Your task to perform on an android device: clear history in the chrome app Image 0: 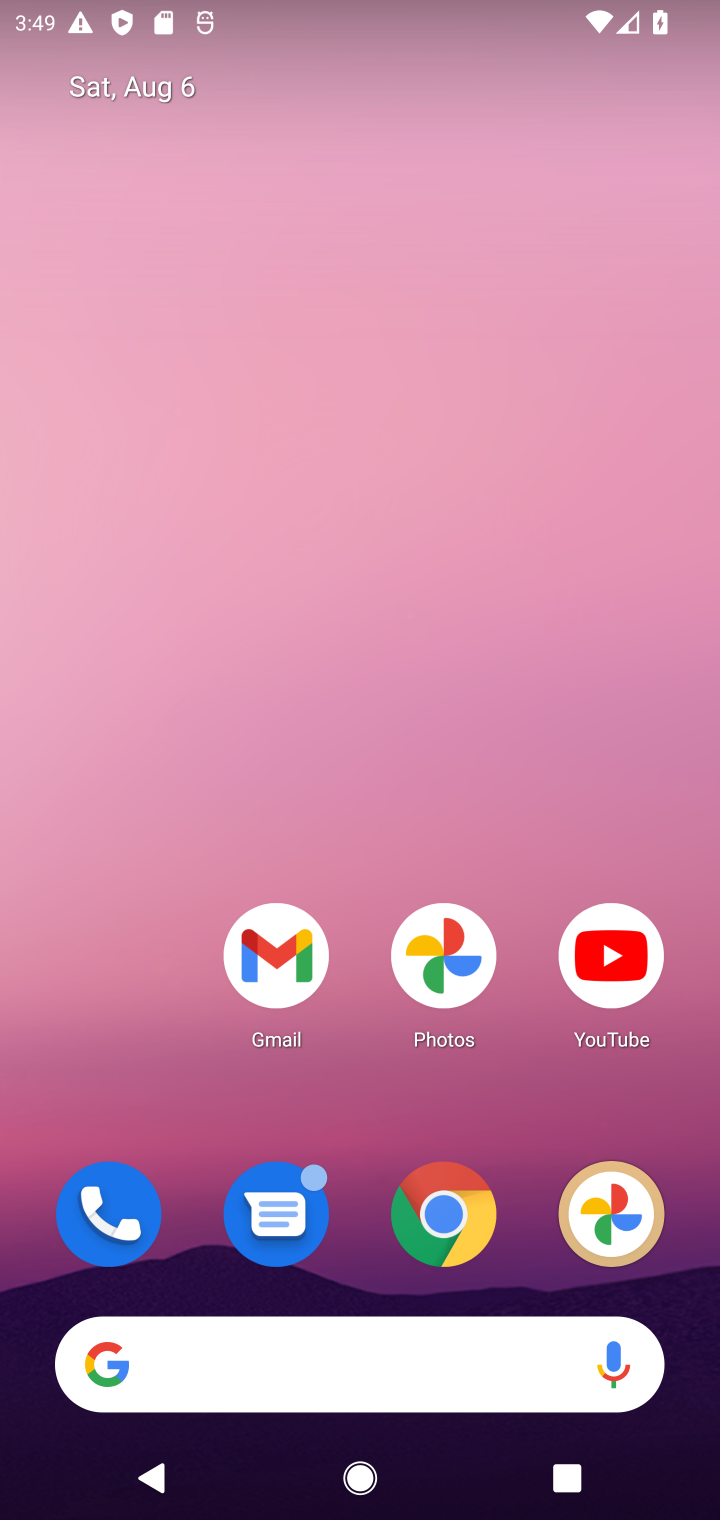
Step 0: click (443, 1203)
Your task to perform on an android device: clear history in the chrome app Image 1: 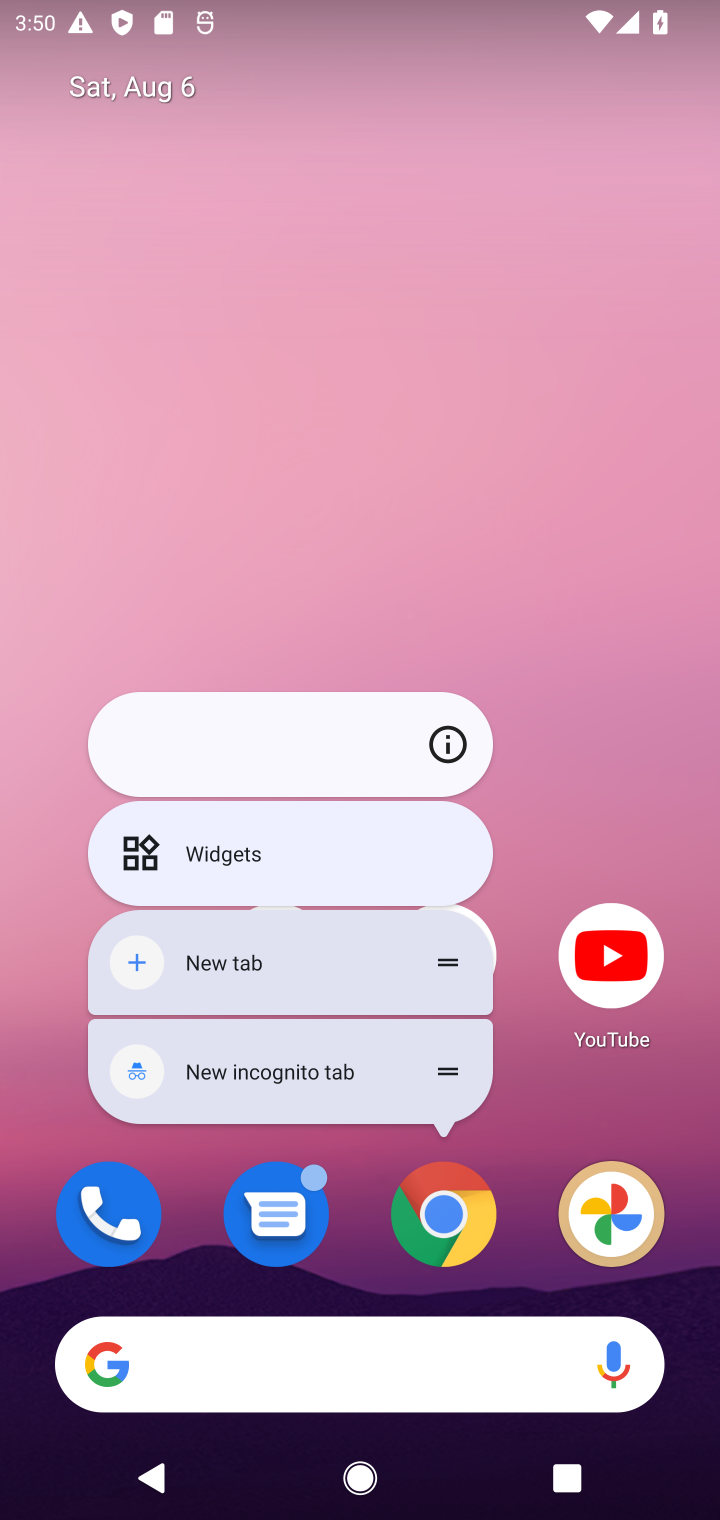
Step 1: click (445, 1199)
Your task to perform on an android device: clear history in the chrome app Image 2: 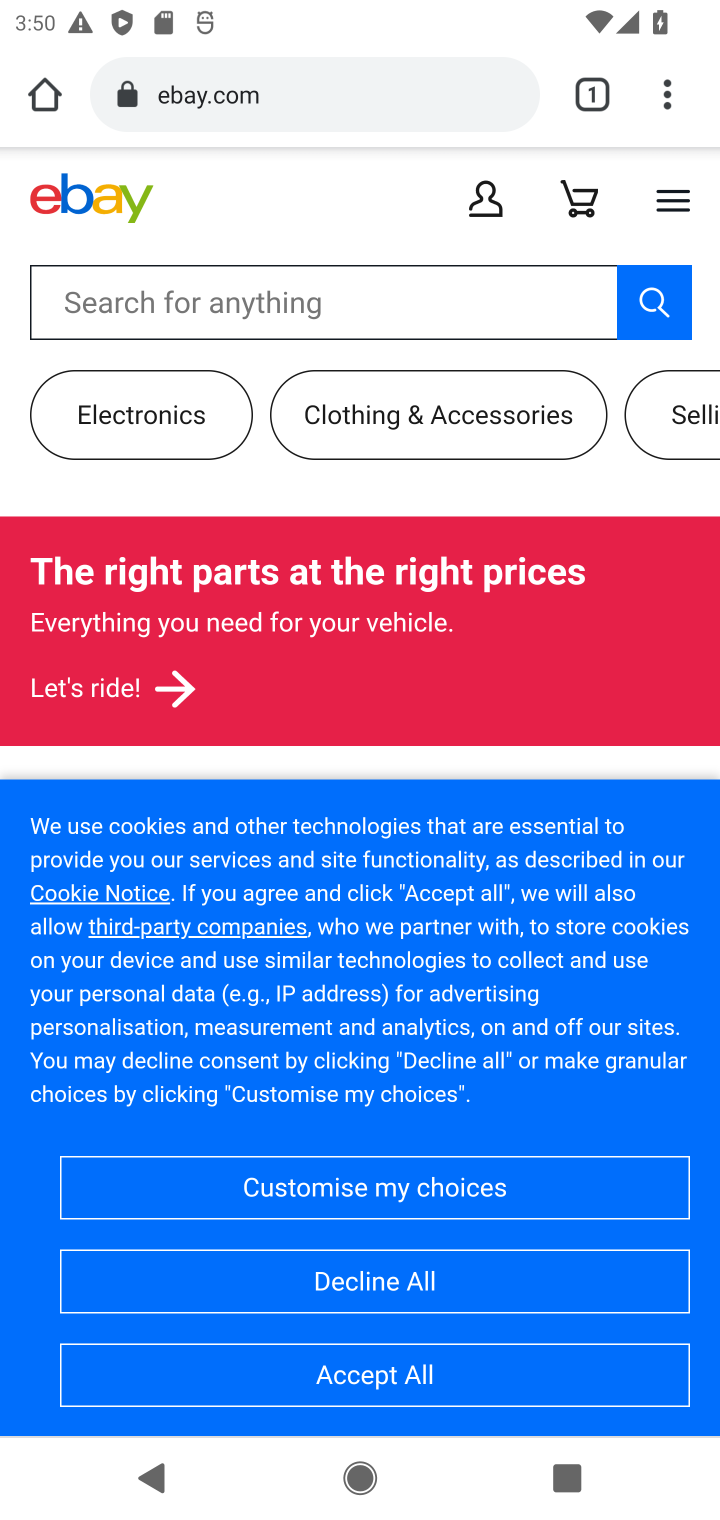
Step 2: click (670, 98)
Your task to perform on an android device: clear history in the chrome app Image 3: 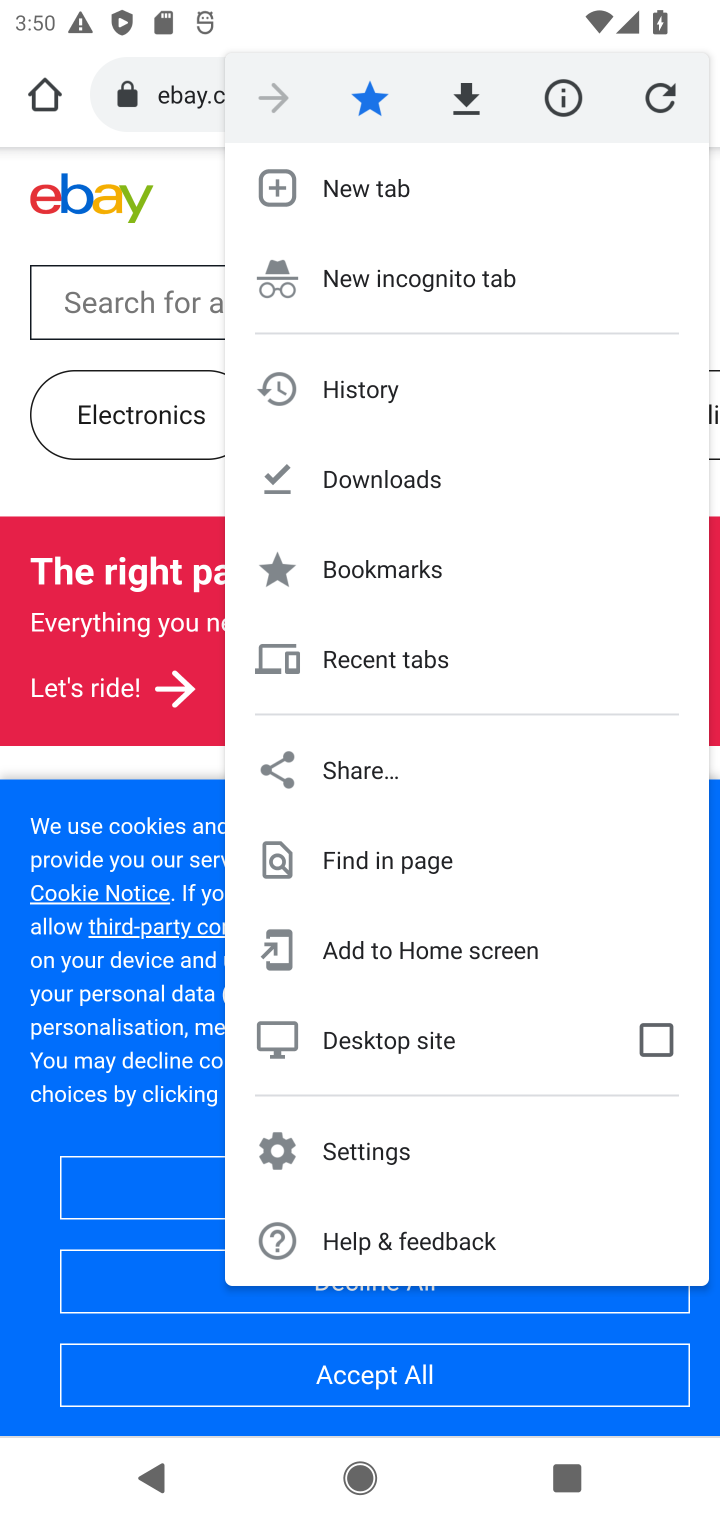
Step 3: click (399, 691)
Your task to perform on an android device: clear history in the chrome app Image 4: 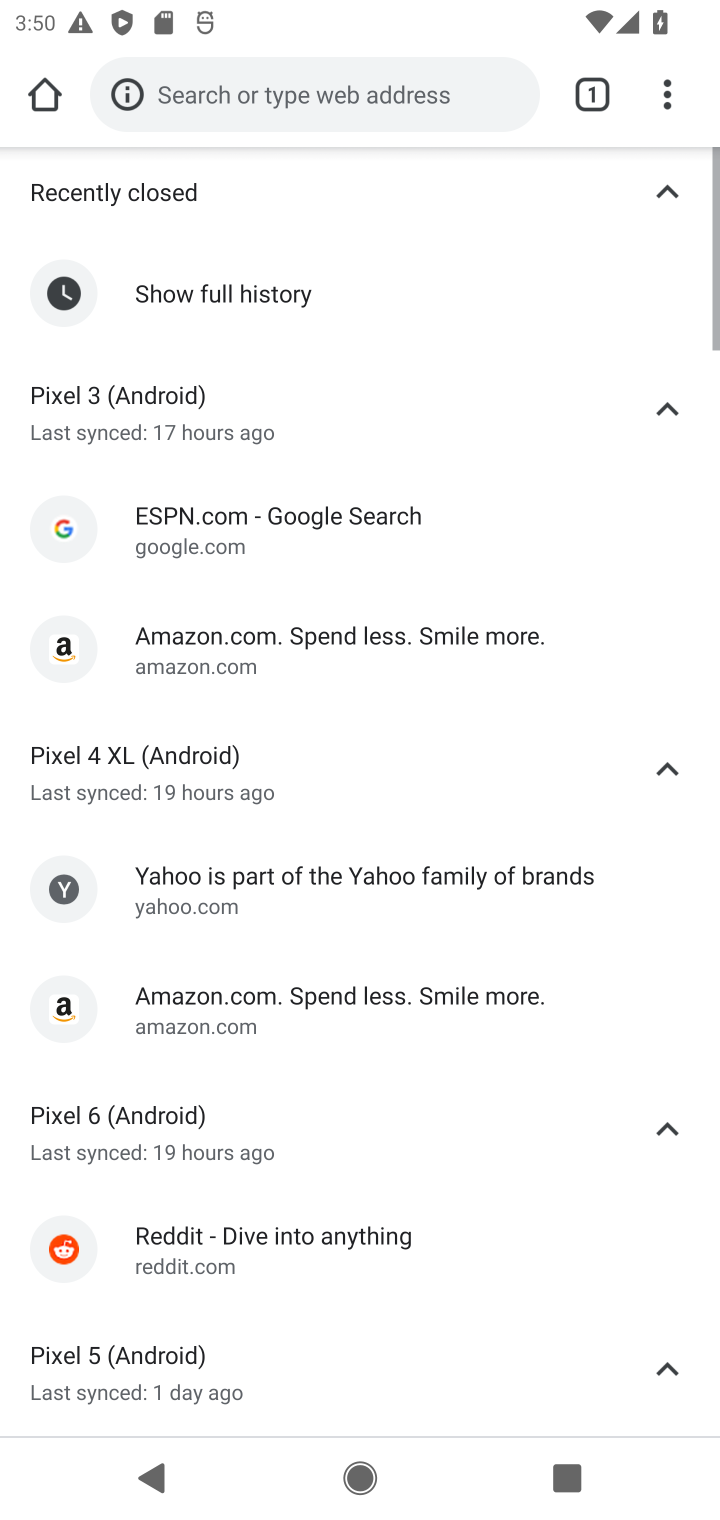
Step 4: click (350, 375)
Your task to perform on an android device: clear history in the chrome app Image 5: 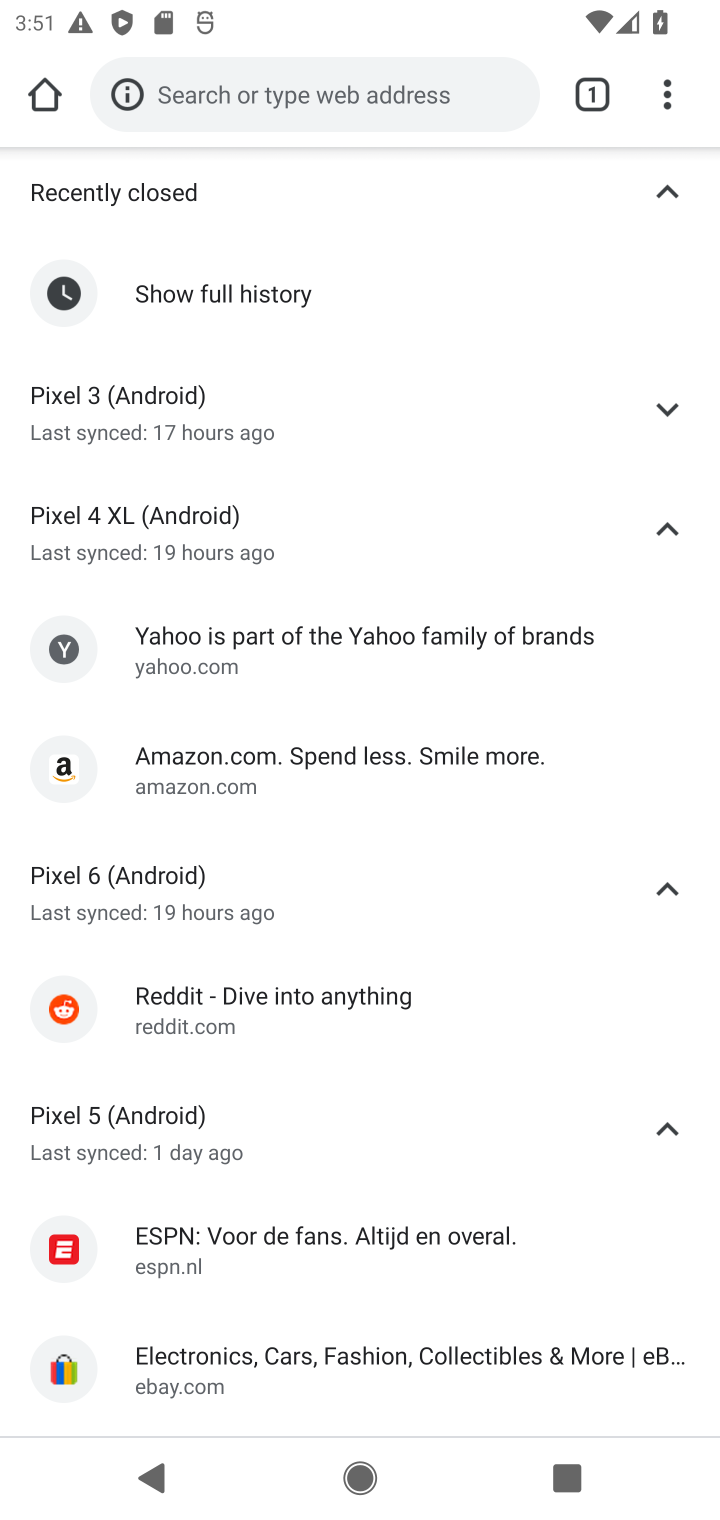
Step 5: click (664, 102)
Your task to perform on an android device: clear history in the chrome app Image 6: 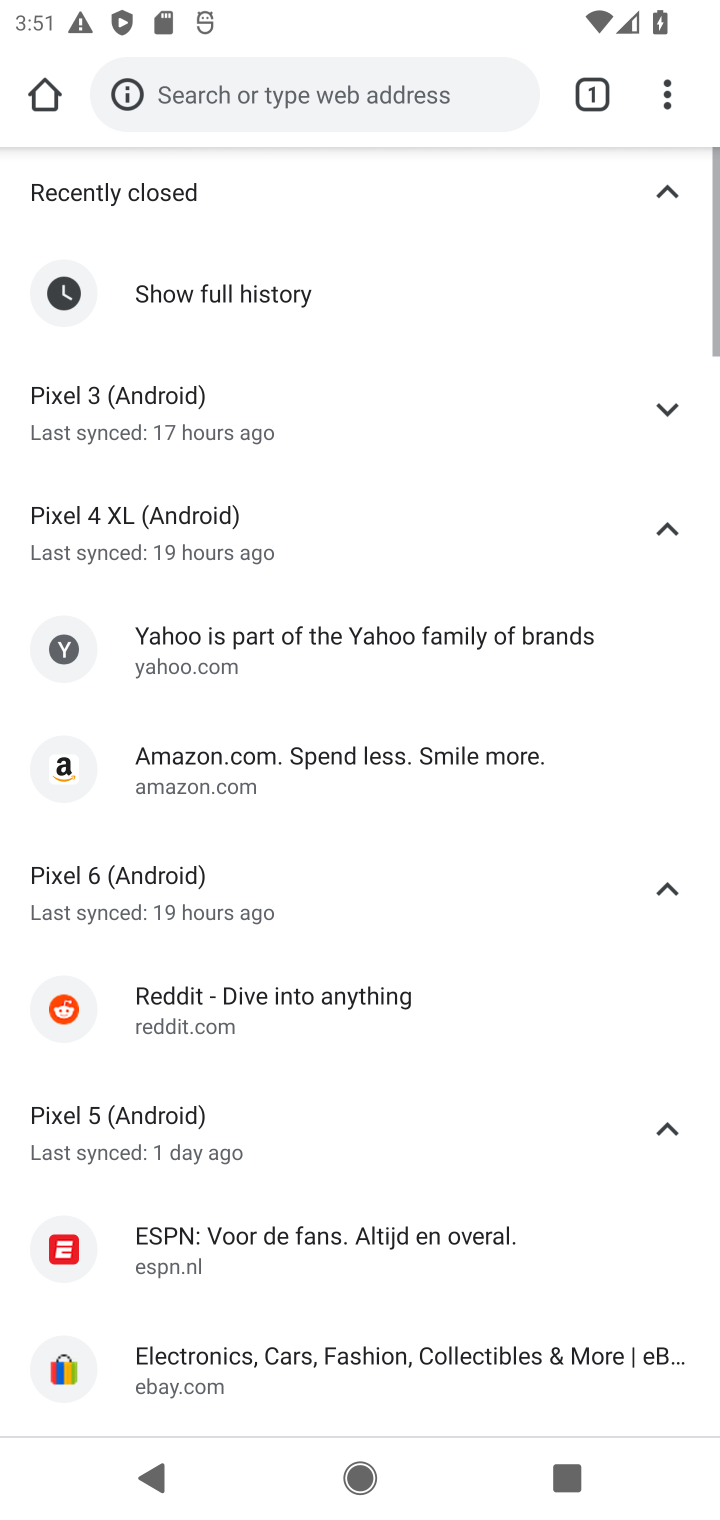
Step 6: click (670, 101)
Your task to perform on an android device: clear history in the chrome app Image 7: 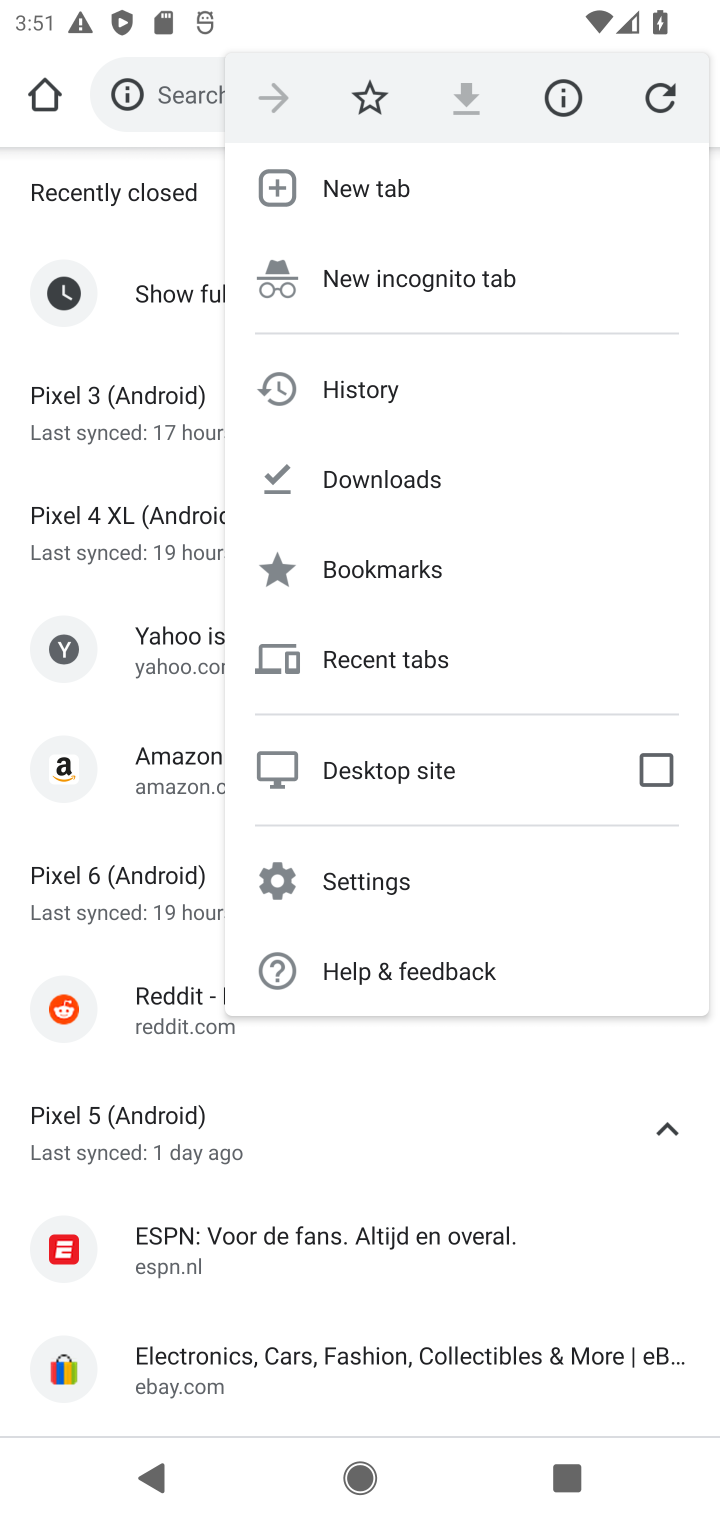
Step 7: click (342, 382)
Your task to perform on an android device: clear history in the chrome app Image 8: 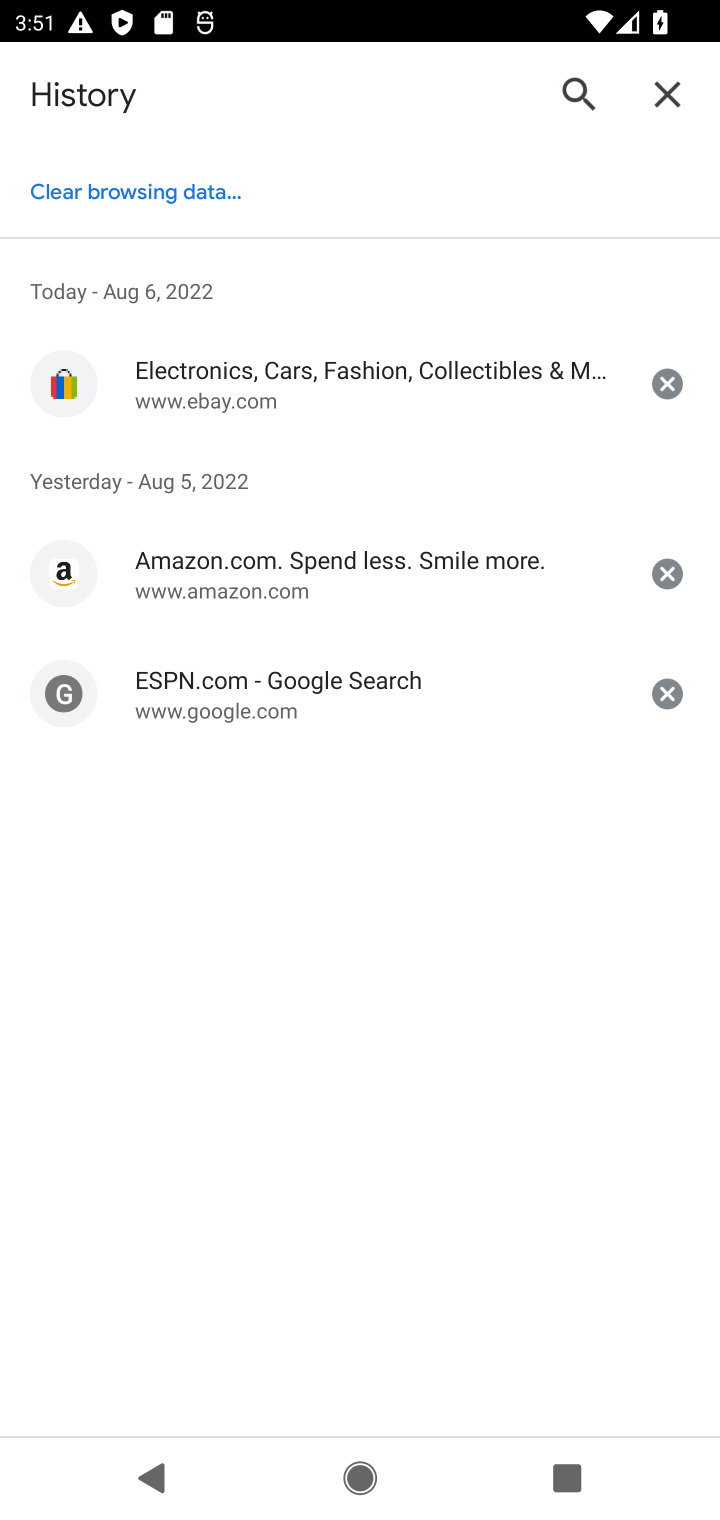
Step 8: click (186, 186)
Your task to perform on an android device: clear history in the chrome app Image 9: 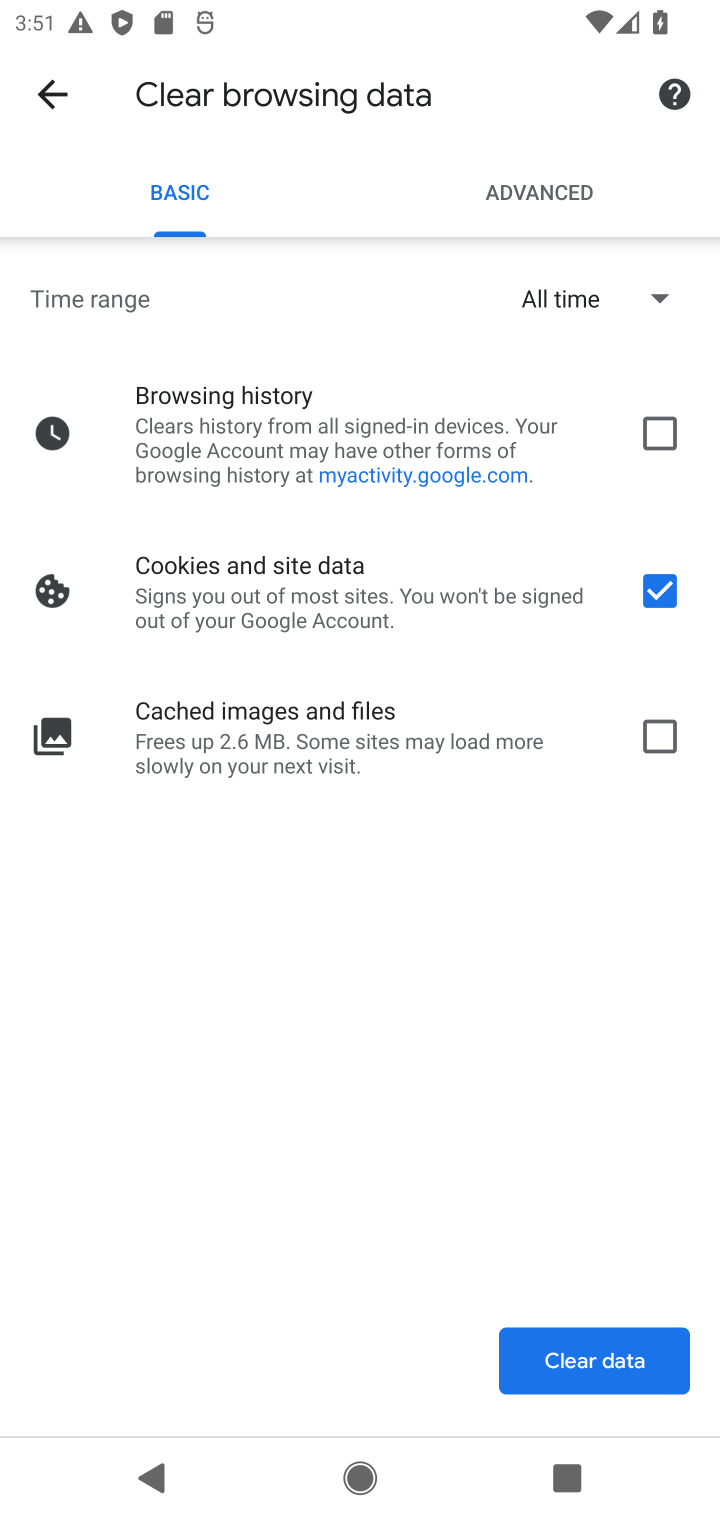
Step 9: click (663, 427)
Your task to perform on an android device: clear history in the chrome app Image 10: 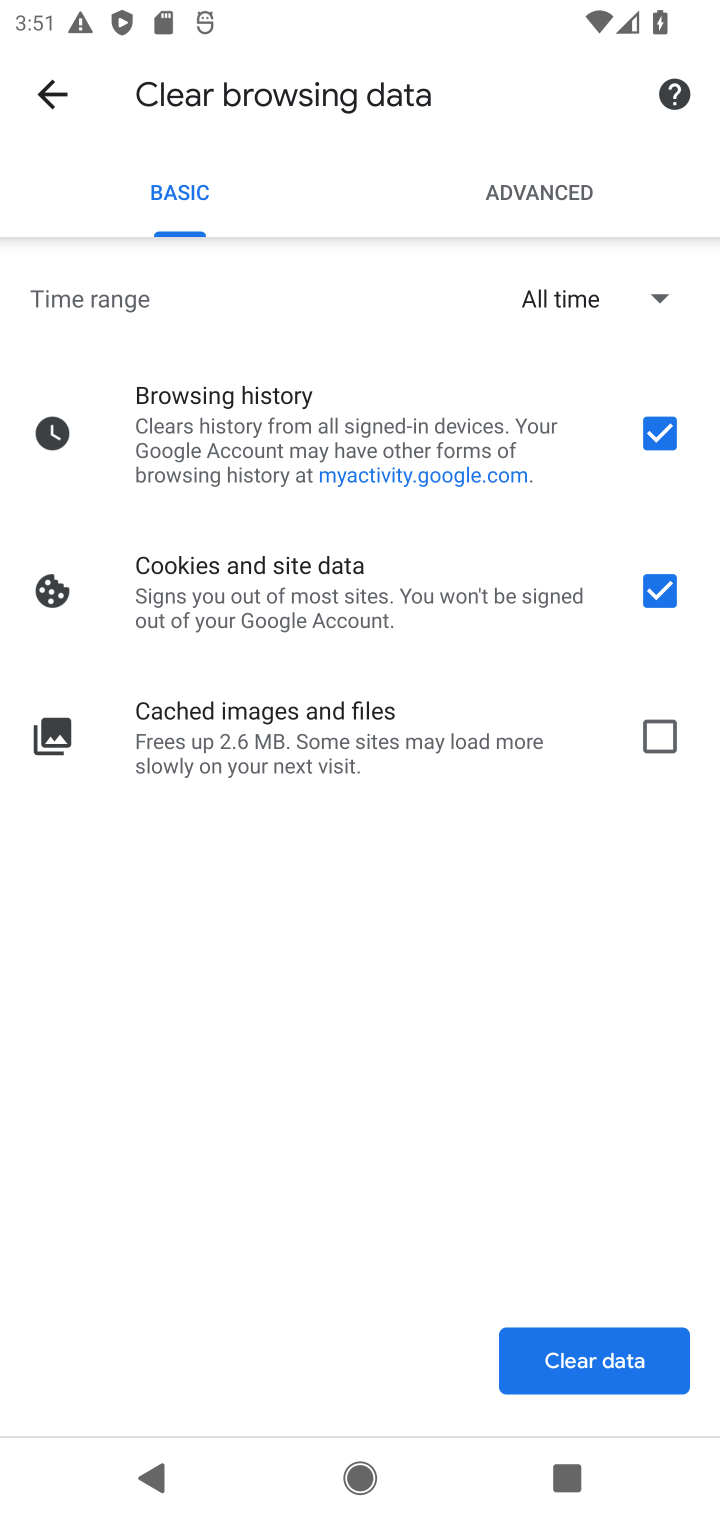
Step 10: click (651, 755)
Your task to perform on an android device: clear history in the chrome app Image 11: 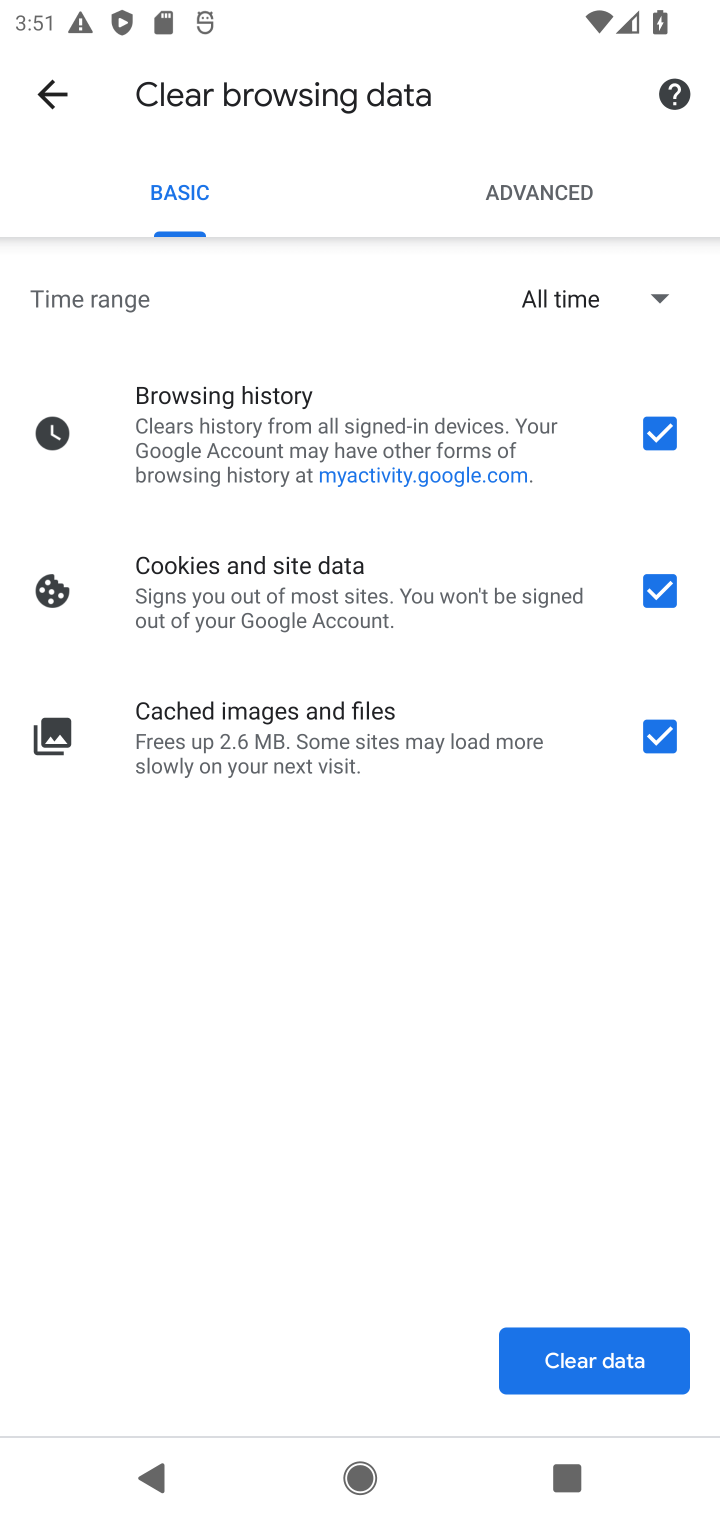
Step 11: click (564, 1352)
Your task to perform on an android device: clear history in the chrome app Image 12: 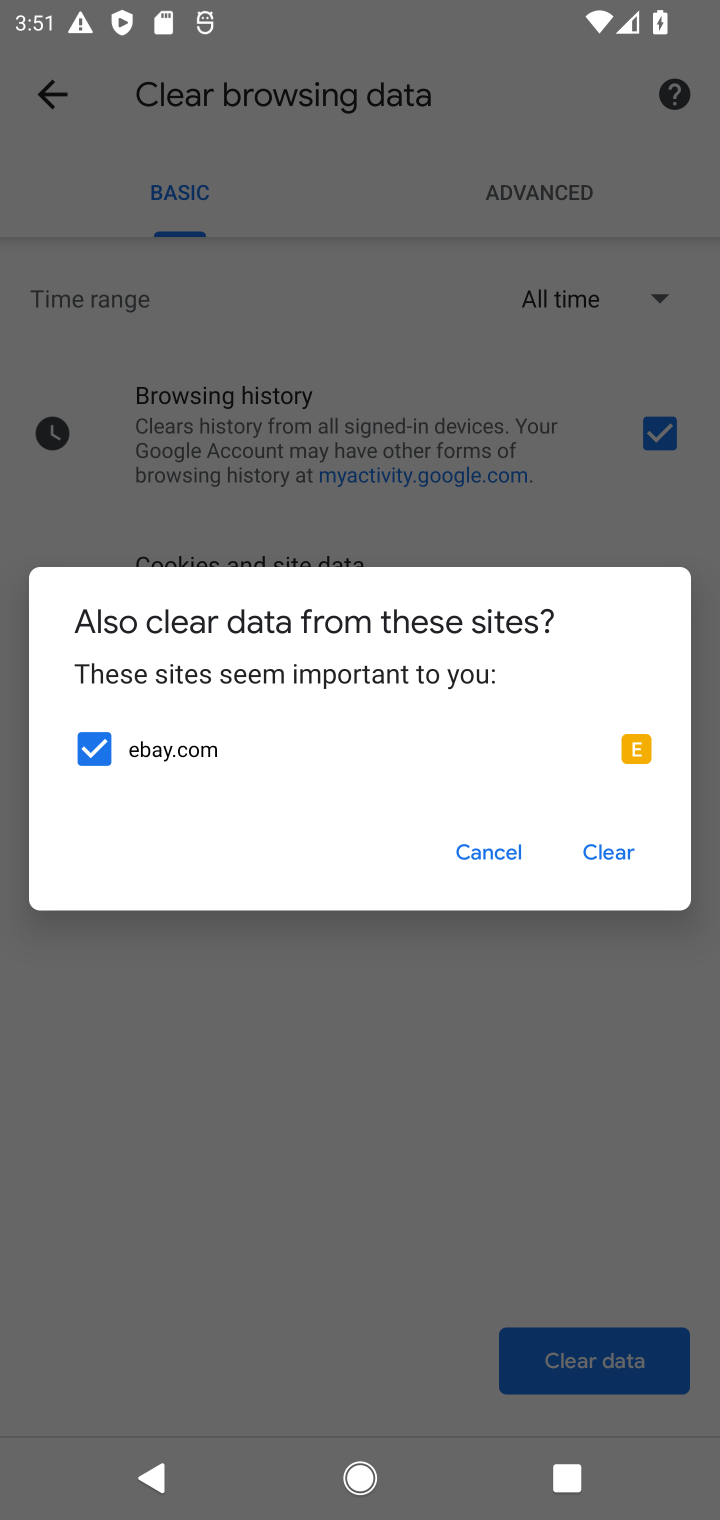
Step 12: click (622, 849)
Your task to perform on an android device: clear history in the chrome app Image 13: 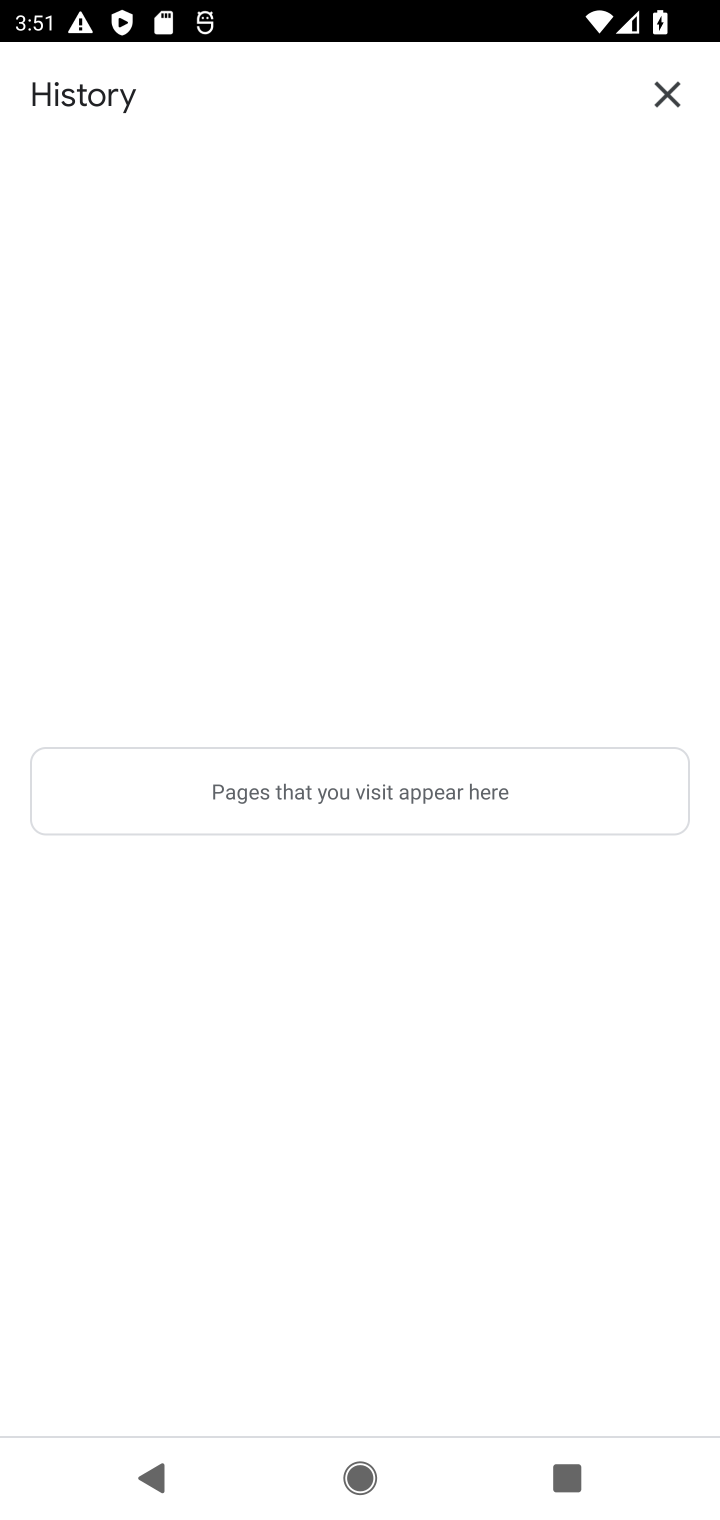
Step 13: task complete